Your task to perform on an android device: check out phone information Image 0: 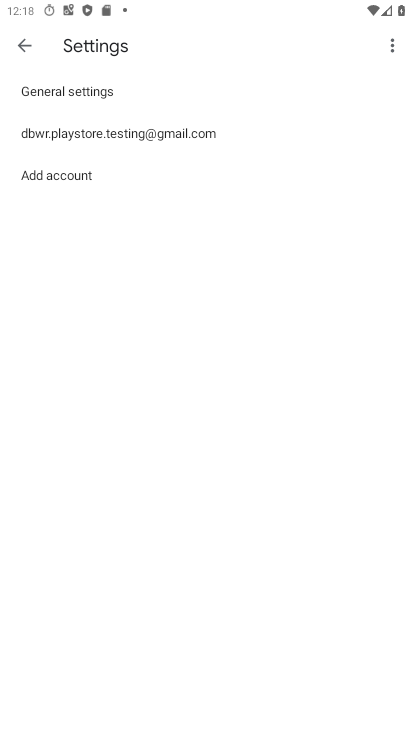
Step 0: press home button
Your task to perform on an android device: check out phone information Image 1: 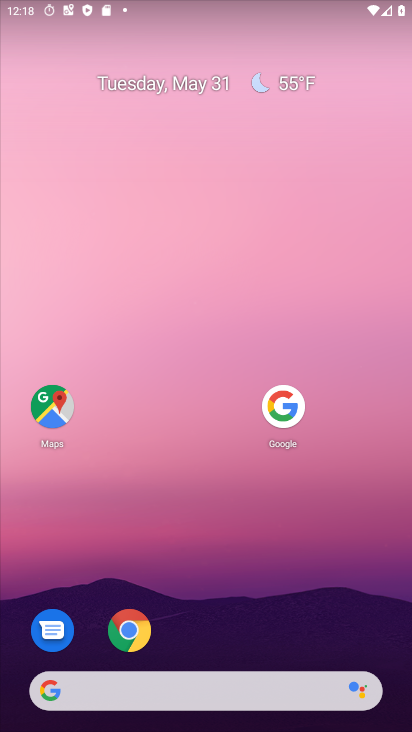
Step 1: drag from (205, 684) to (238, 77)
Your task to perform on an android device: check out phone information Image 2: 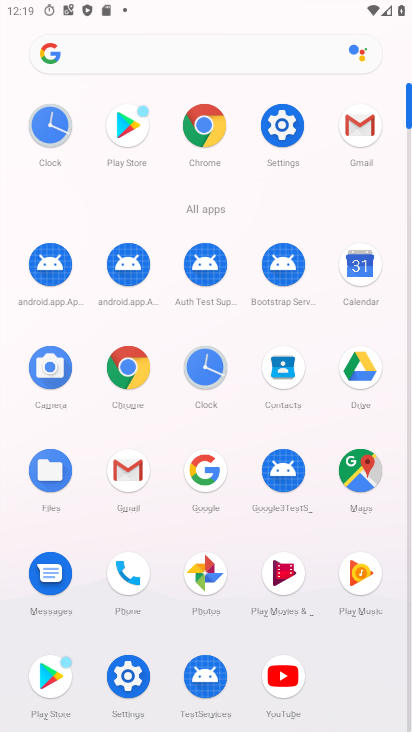
Step 2: click (280, 137)
Your task to perform on an android device: check out phone information Image 3: 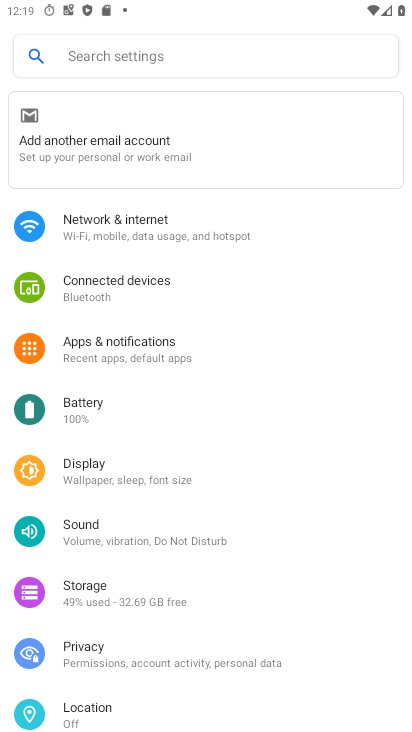
Step 3: drag from (352, 314) to (362, 84)
Your task to perform on an android device: check out phone information Image 4: 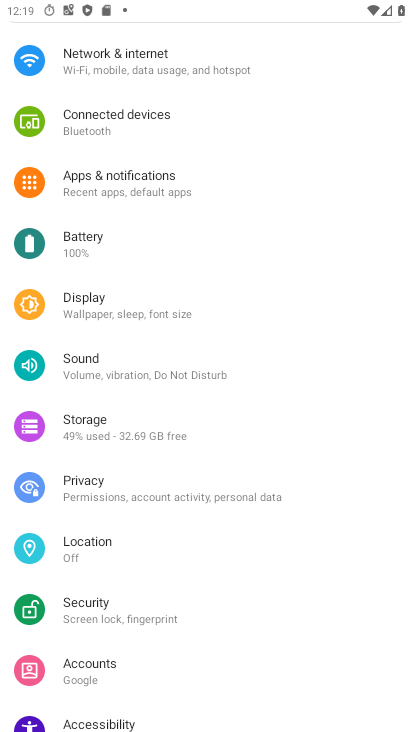
Step 4: drag from (228, 641) to (364, 78)
Your task to perform on an android device: check out phone information Image 5: 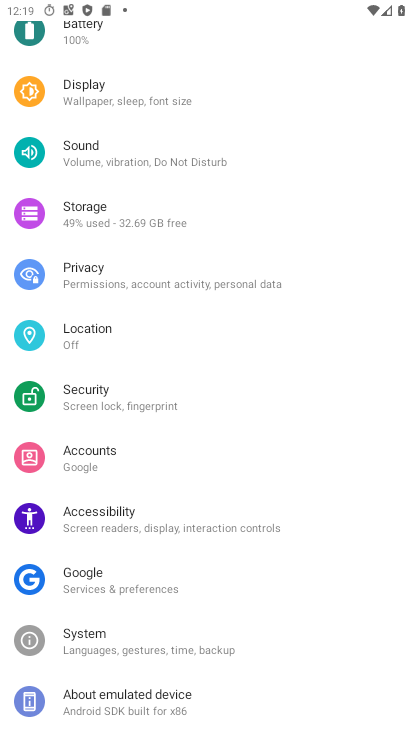
Step 5: click (152, 702)
Your task to perform on an android device: check out phone information Image 6: 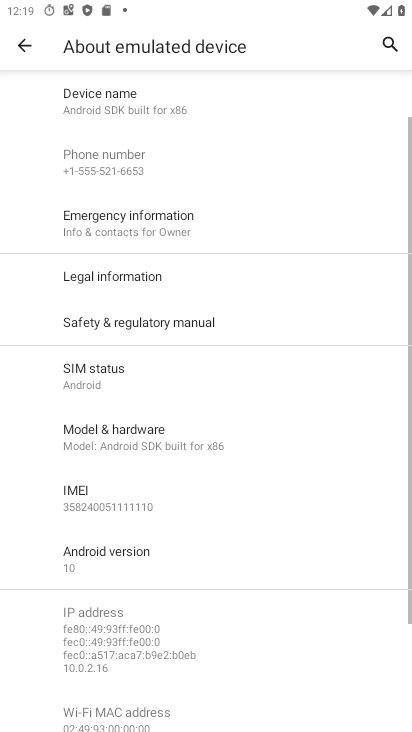
Step 6: task complete